Your task to perform on an android device: Clear the cart on costco.com. Search for "macbook air" on costco.com, select the first entry, add it to the cart, then select checkout. Image 0: 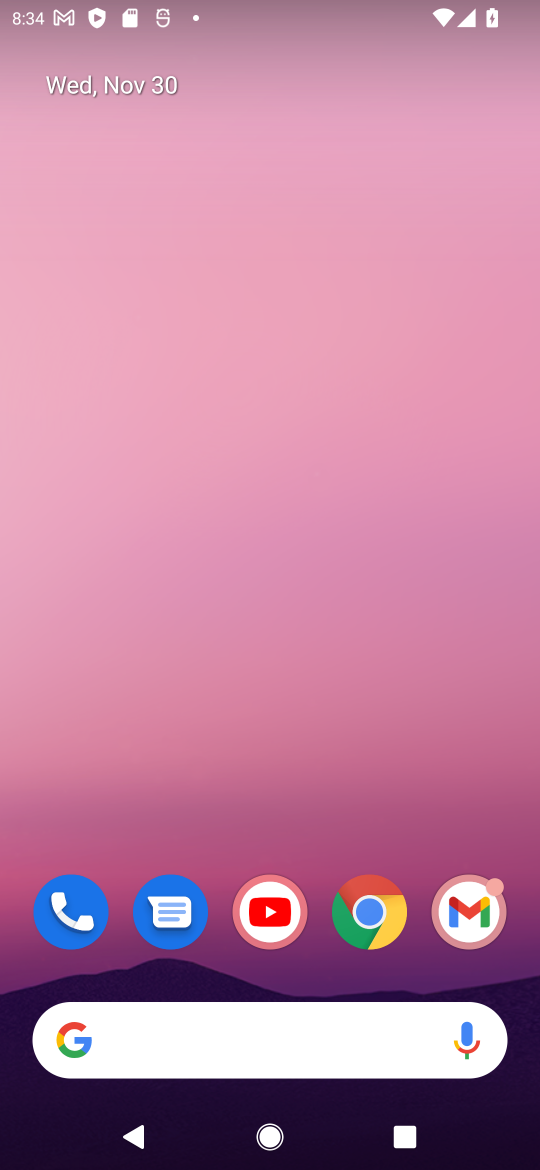
Step 0: click (288, 1016)
Your task to perform on an android device: Clear the cart on costco.com. Search for "macbook air" on costco.com, select the first entry, add it to the cart, then select checkout. Image 1: 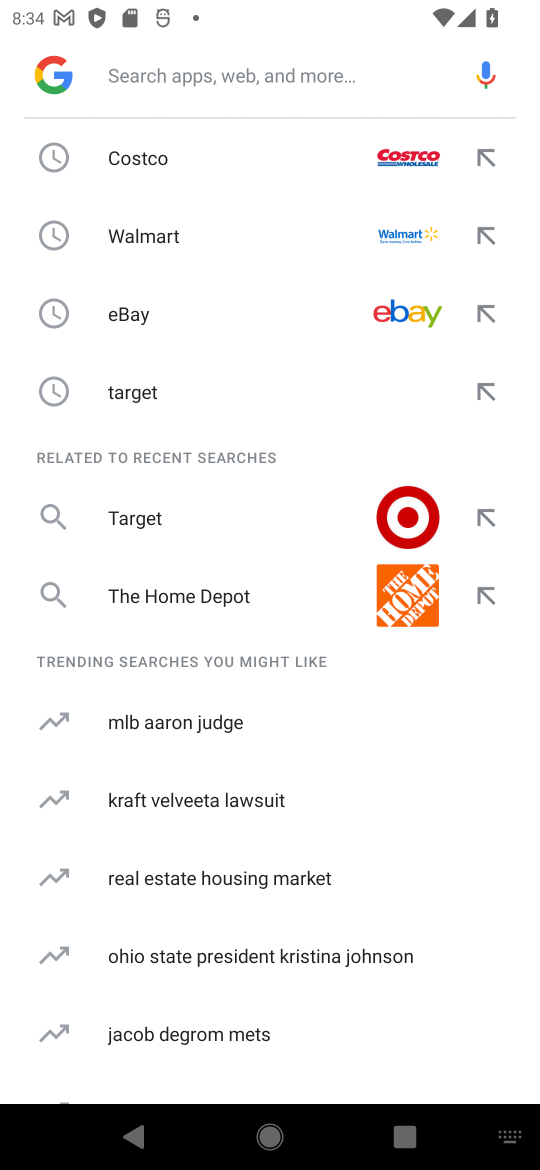
Step 1: click (345, 148)
Your task to perform on an android device: Clear the cart on costco.com. Search for "macbook air" on costco.com, select the first entry, add it to the cart, then select checkout. Image 2: 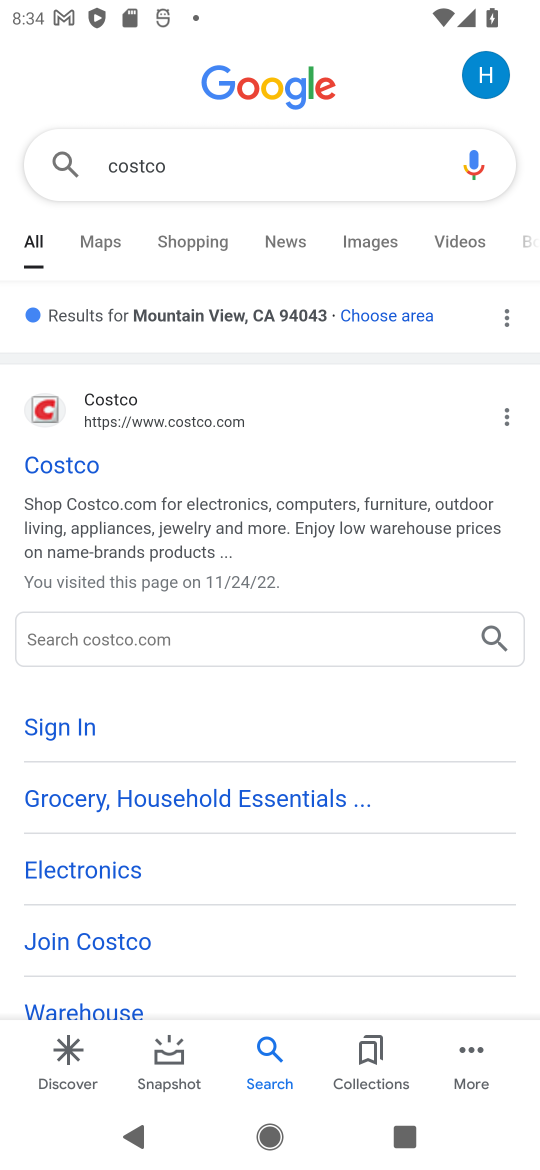
Step 2: click (65, 468)
Your task to perform on an android device: Clear the cart on costco.com. Search for "macbook air" on costco.com, select the first entry, add it to the cart, then select checkout. Image 3: 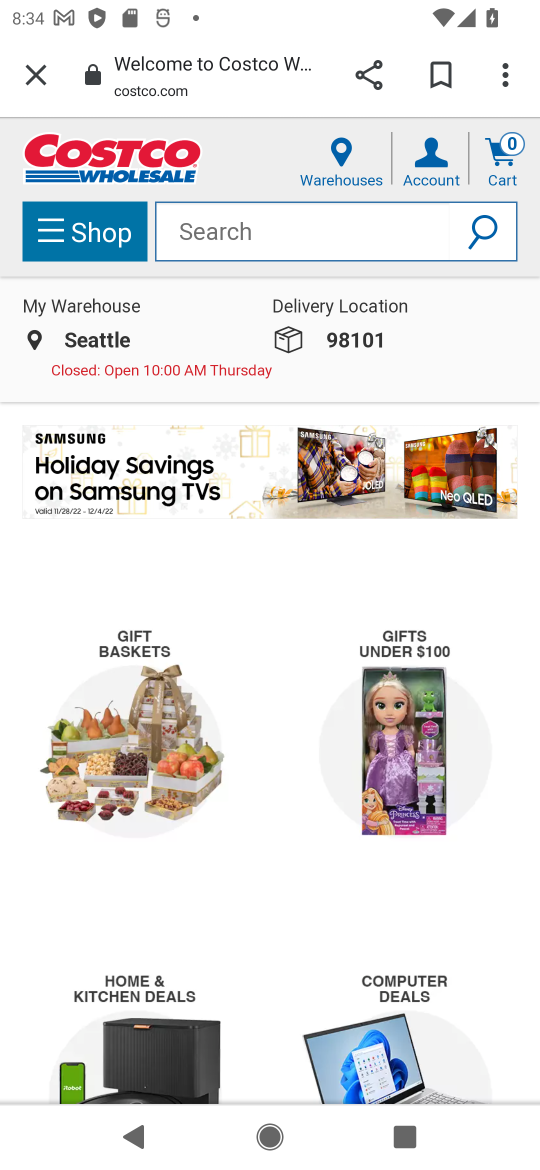
Step 3: click (494, 159)
Your task to perform on an android device: Clear the cart on costco.com. Search for "macbook air" on costco.com, select the first entry, add it to the cart, then select checkout. Image 4: 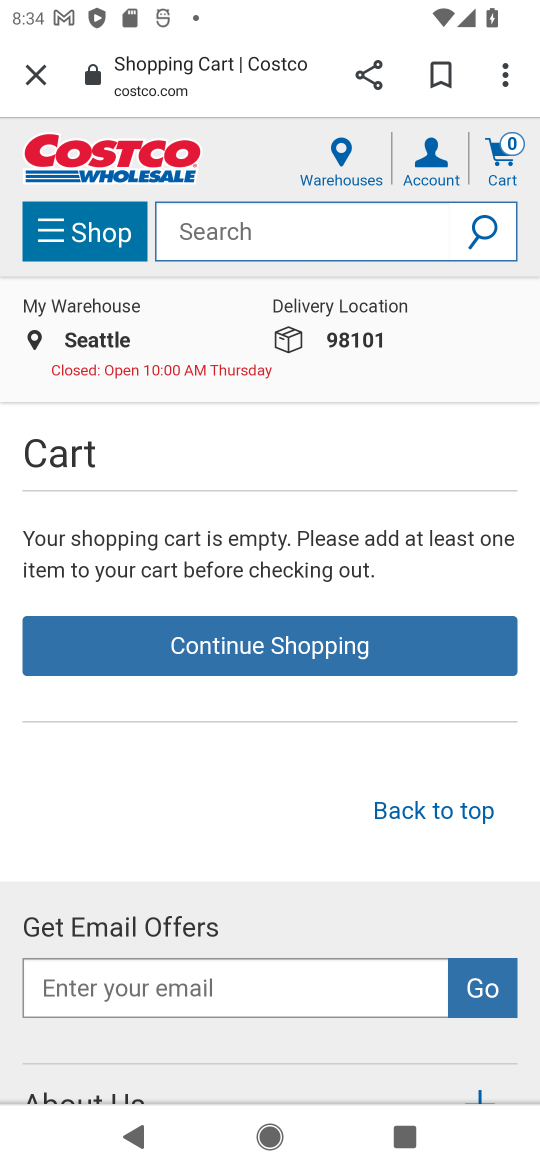
Step 4: click (280, 230)
Your task to perform on an android device: Clear the cart on costco.com. Search for "macbook air" on costco.com, select the first entry, add it to the cart, then select checkout. Image 5: 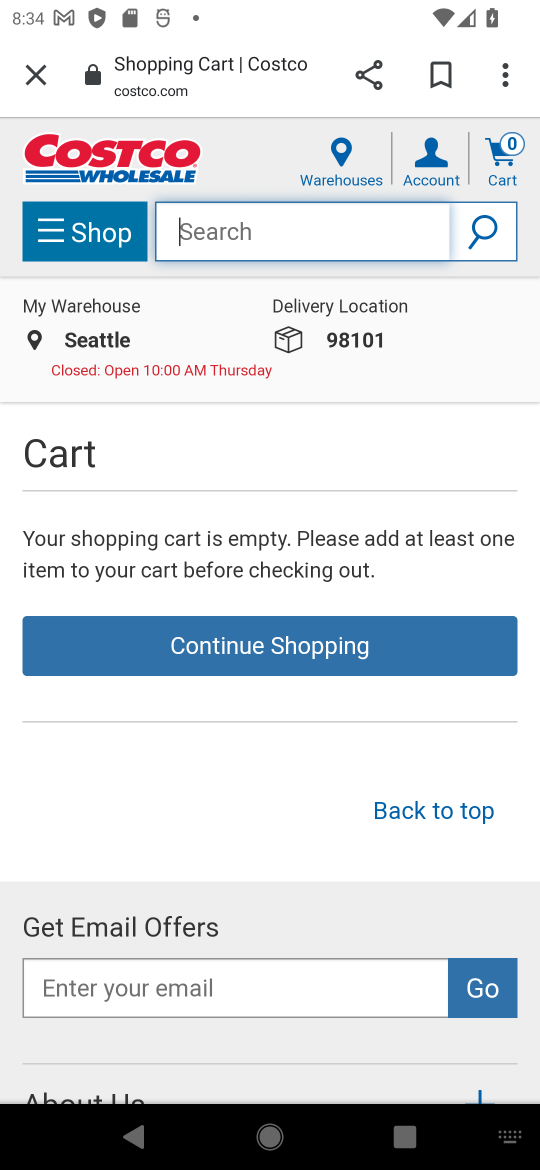
Step 5: type "macbook air"
Your task to perform on an android device: Clear the cart on costco.com. Search for "macbook air" on costco.com, select the first entry, add it to the cart, then select checkout. Image 6: 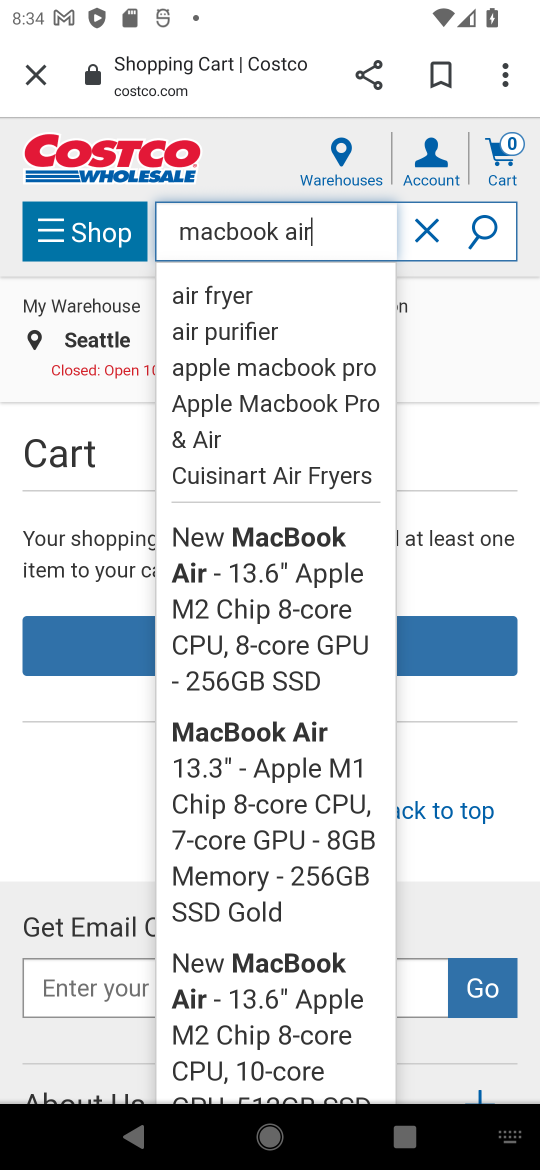
Step 6: click (483, 231)
Your task to perform on an android device: Clear the cart on costco.com. Search for "macbook air" on costco.com, select the first entry, add it to the cart, then select checkout. Image 7: 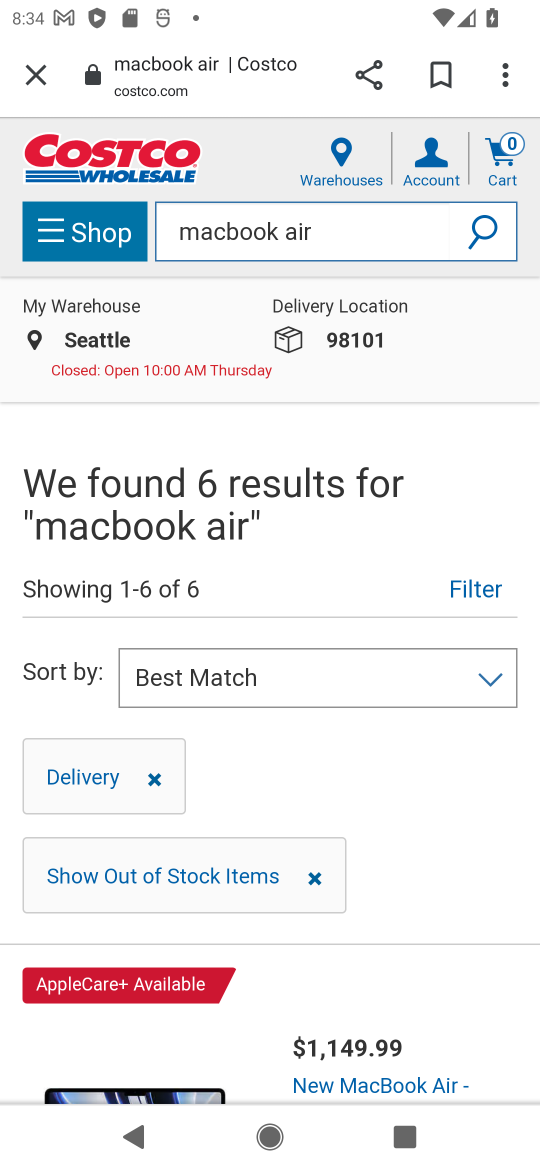
Step 7: drag from (371, 980) to (350, 584)
Your task to perform on an android device: Clear the cart on costco.com. Search for "macbook air" on costco.com, select the first entry, add it to the cart, then select checkout. Image 8: 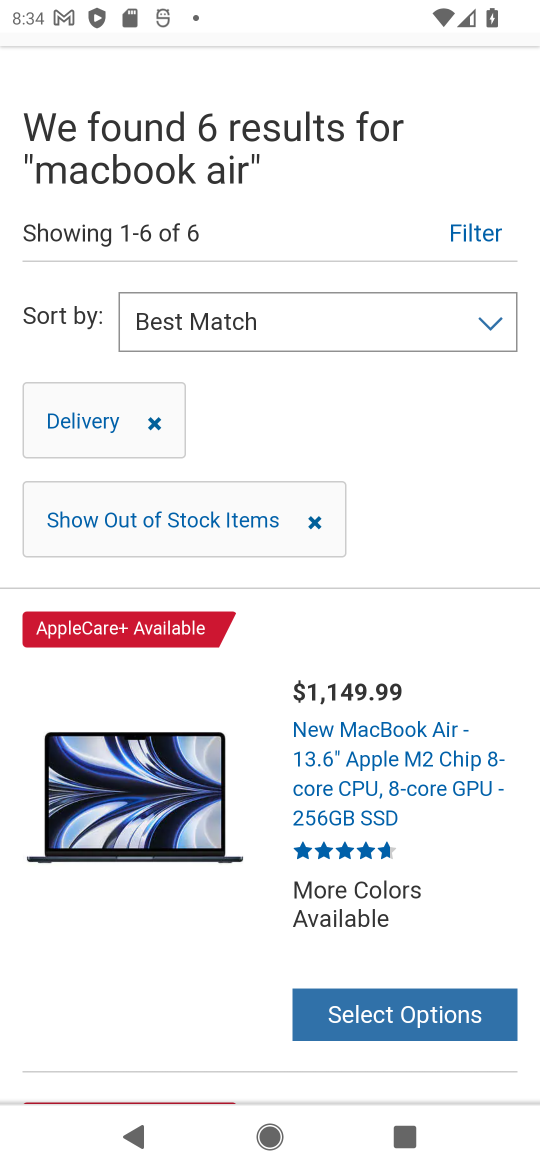
Step 8: click (385, 1019)
Your task to perform on an android device: Clear the cart on costco.com. Search for "macbook air" on costco.com, select the first entry, add it to the cart, then select checkout. Image 9: 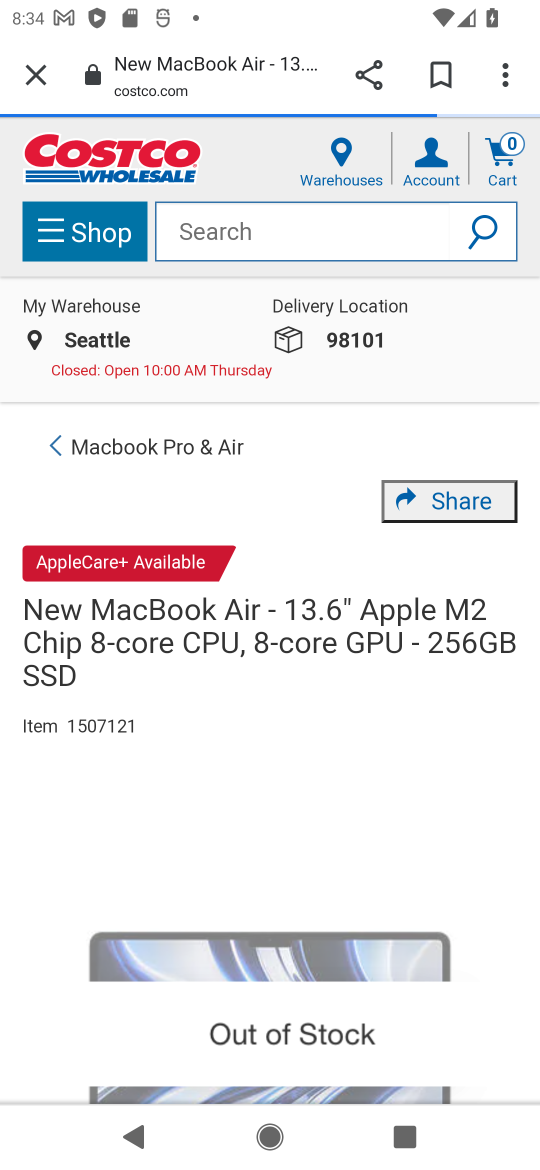
Step 9: task complete